Your task to perform on an android device: uninstall "Clock" Image 0: 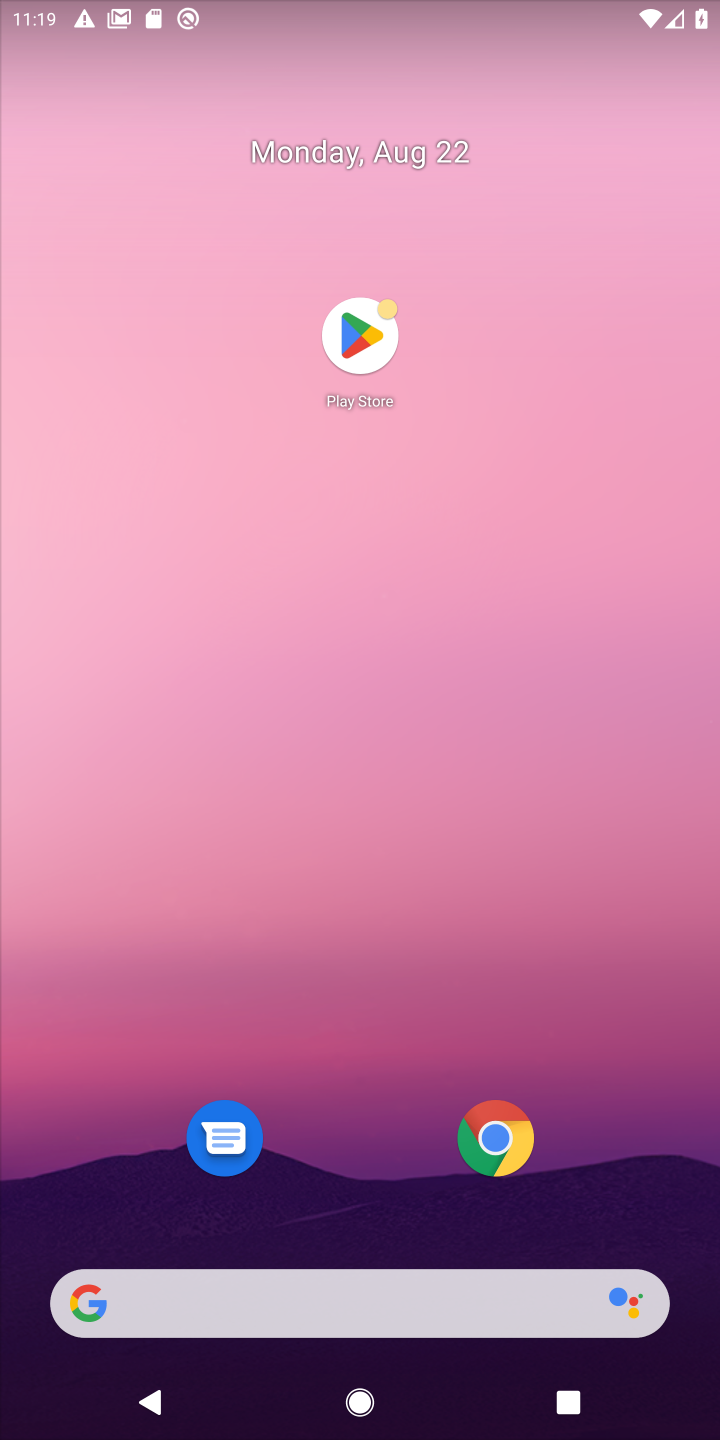
Step 0: click (372, 343)
Your task to perform on an android device: uninstall "Clock" Image 1: 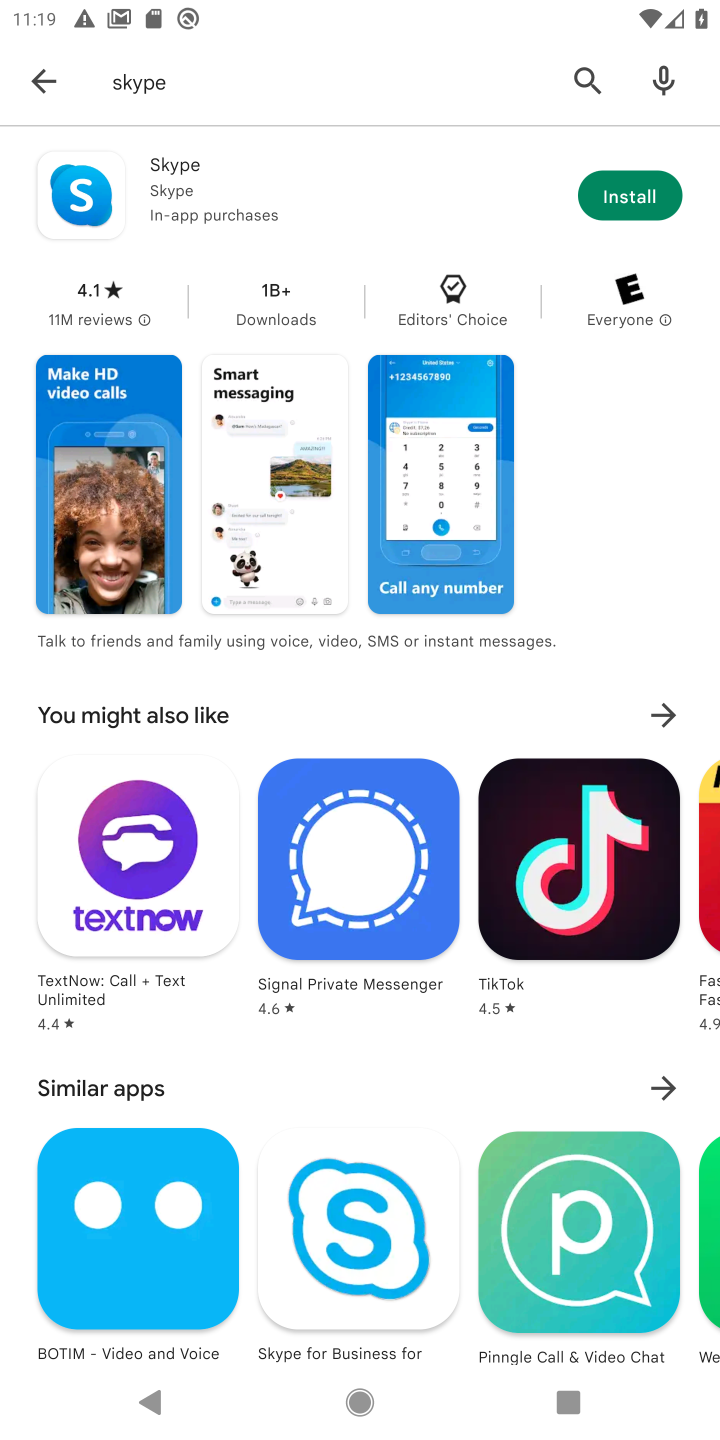
Step 1: click (578, 81)
Your task to perform on an android device: uninstall "Clock" Image 2: 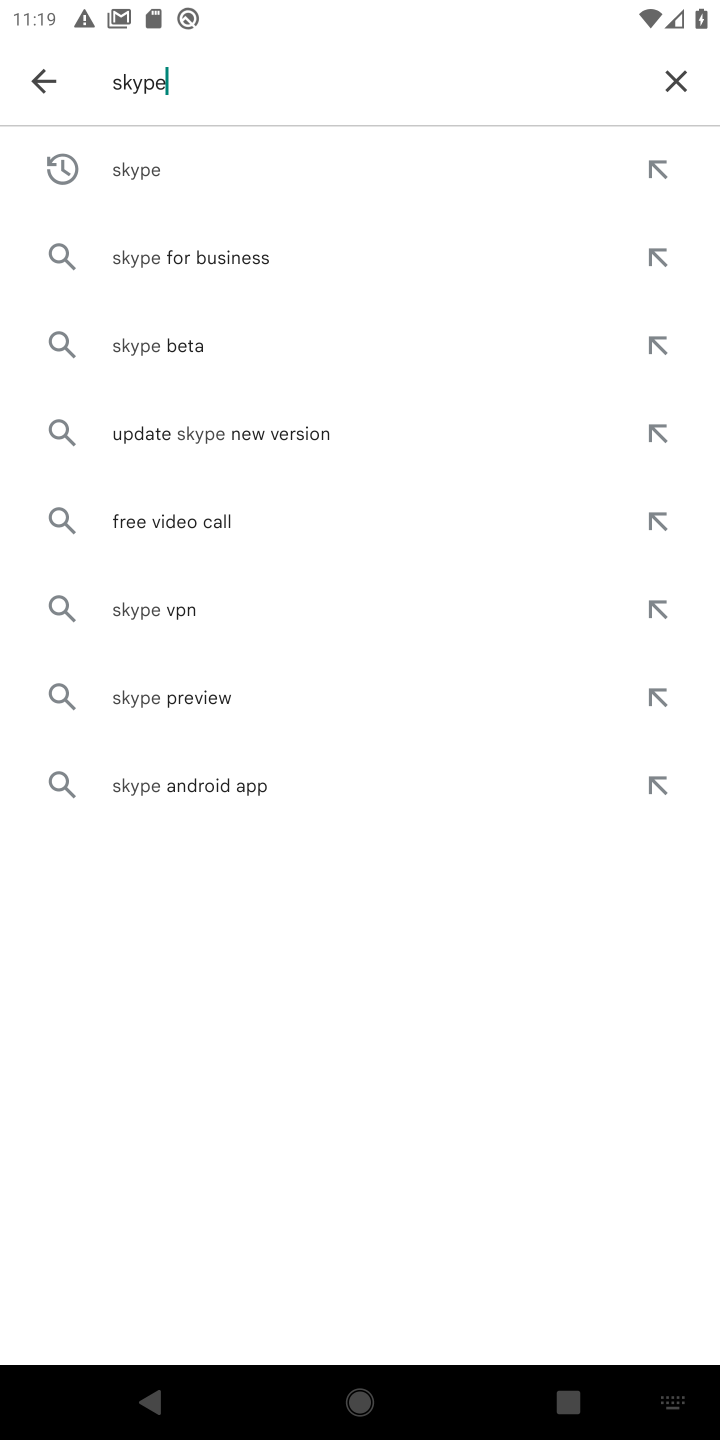
Step 2: click (673, 65)
Your task to perform on an android device: uninstall "Clock" Image 3: 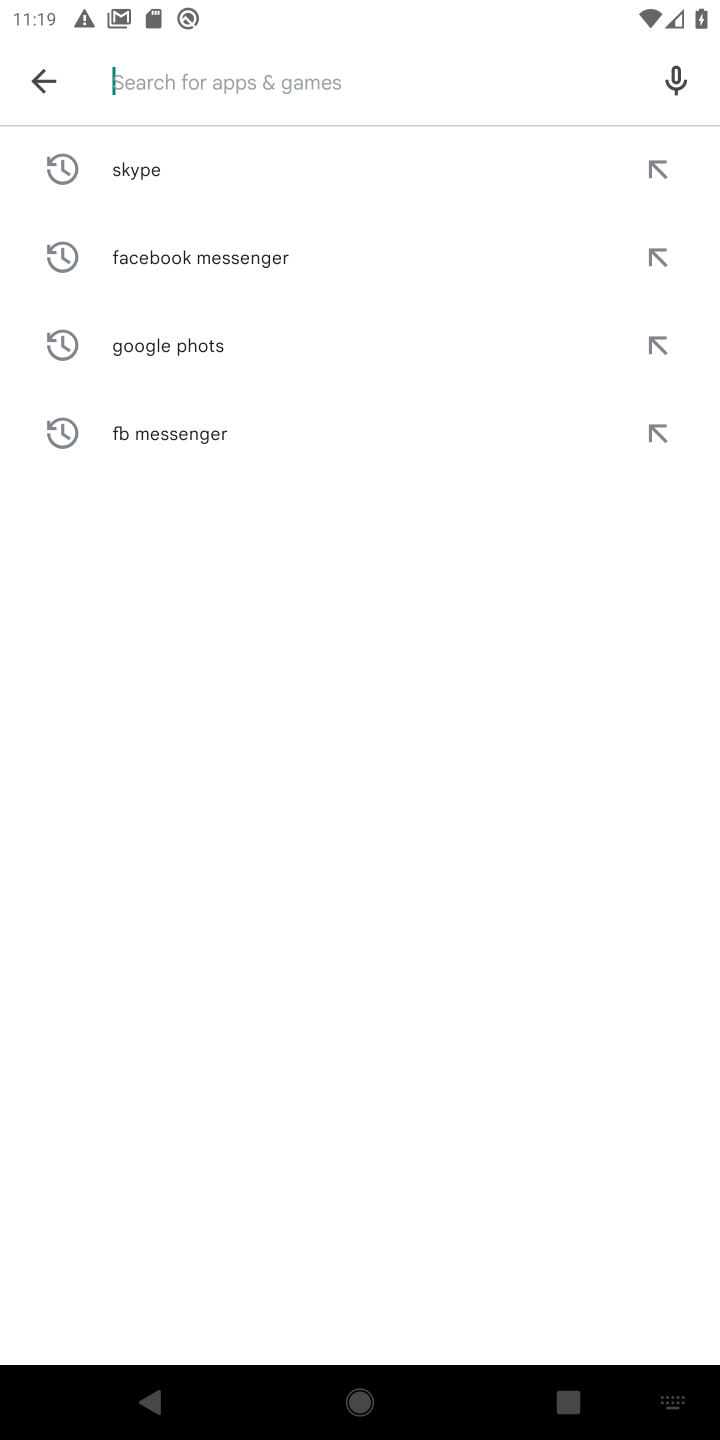
Step 3: type "clock"
Your task to perform on an android device: uninstall "Clock" Image 4: 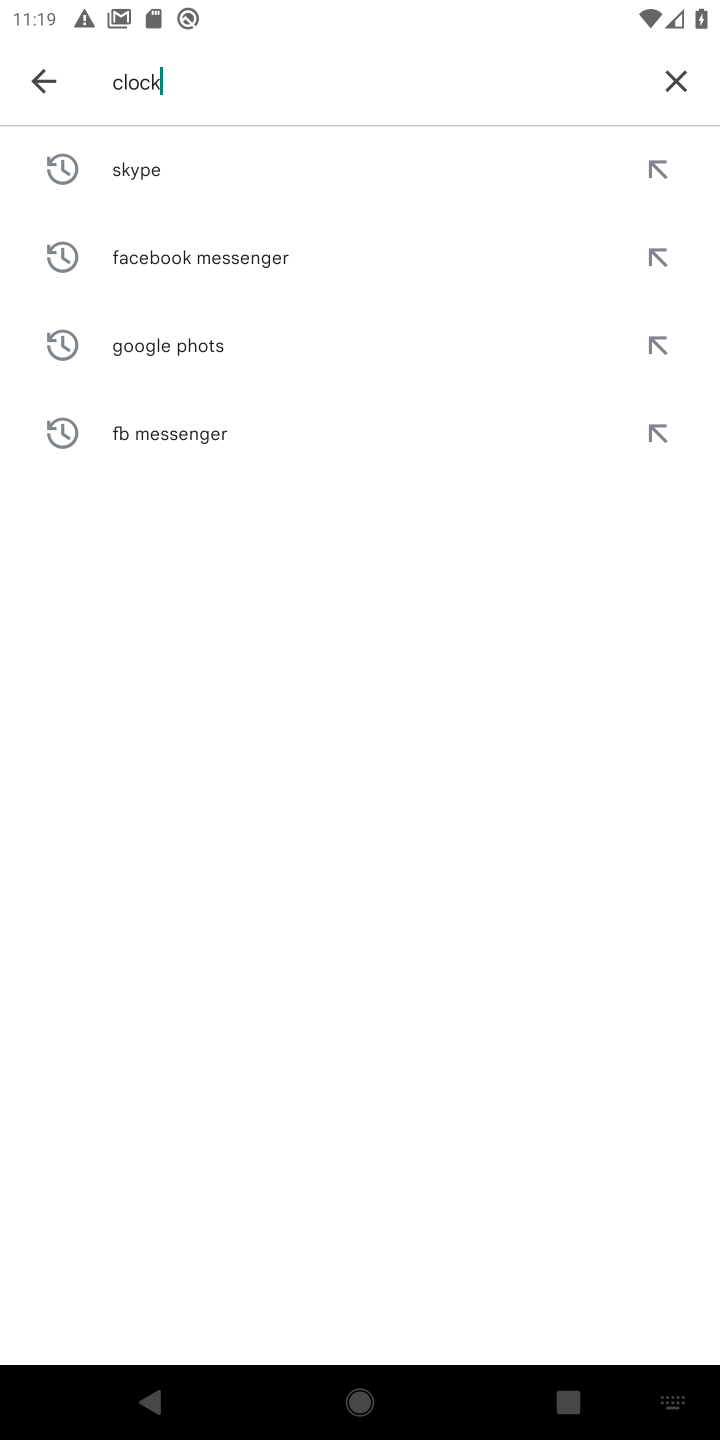
Step 4: type ""
Your task to perform on an android device: uninstall "Clock" Image 5: 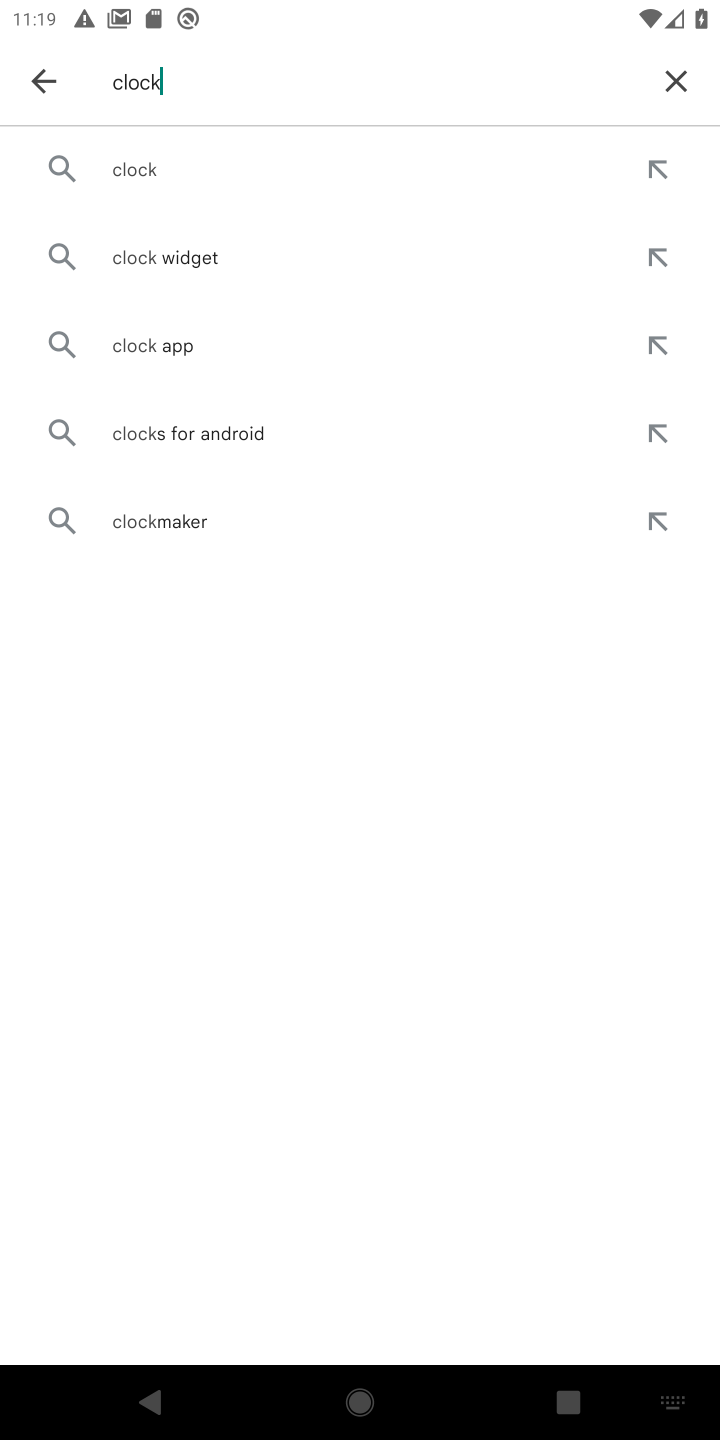
Step 5: click (131, 163)
Your task to perform on an android device: uninstall "Clock" Image 6: 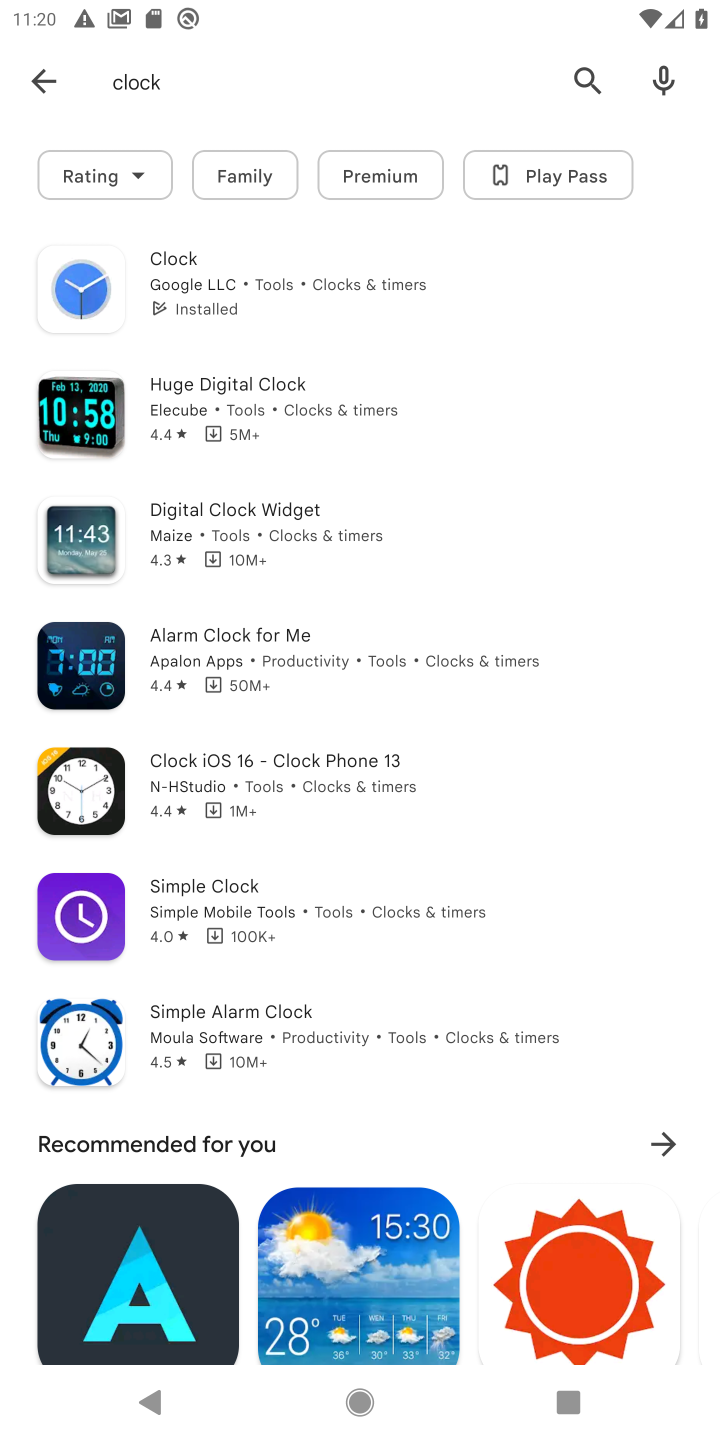
Step 6: click (179, 273)
Your task to perform on an android device: uninstall "Clock" Image 7: 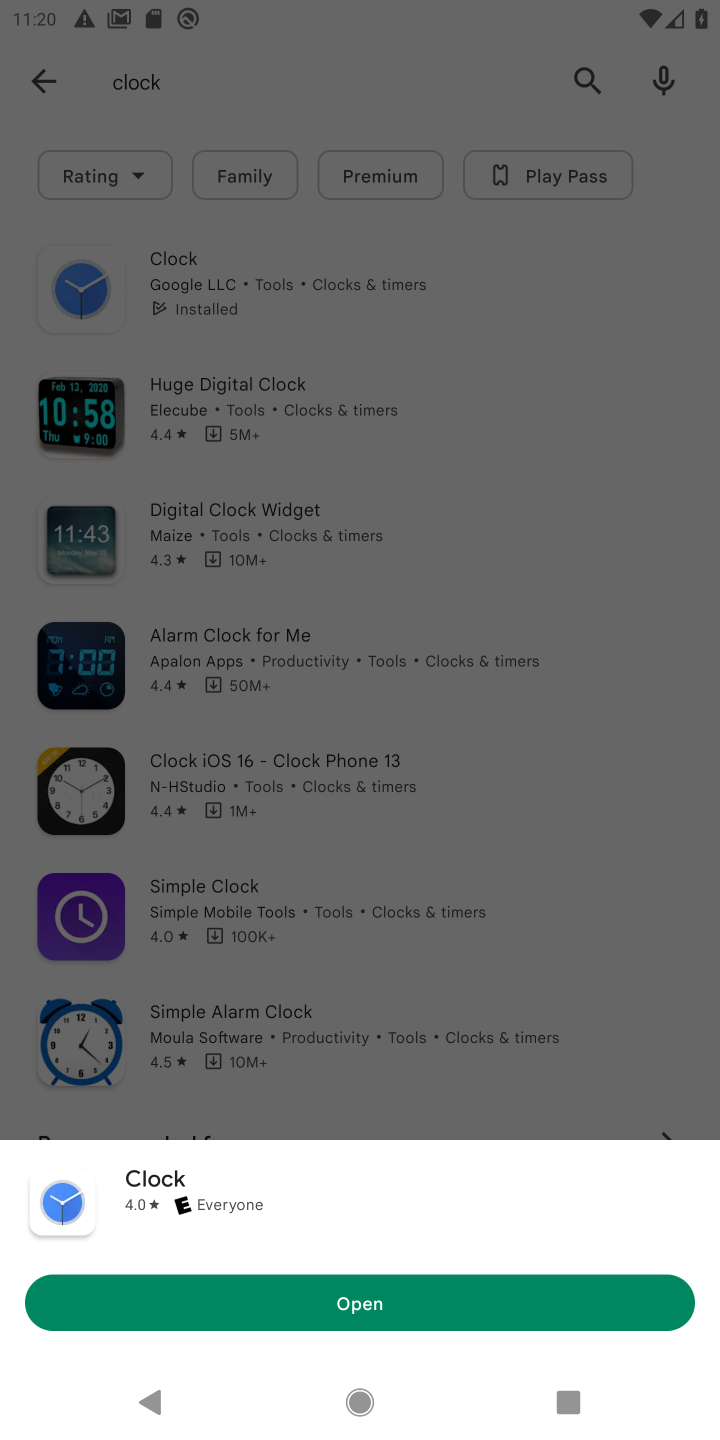
Step 7: click (553, 504)
Your task to perform on an android device: uninstall "Clock" Image 8: 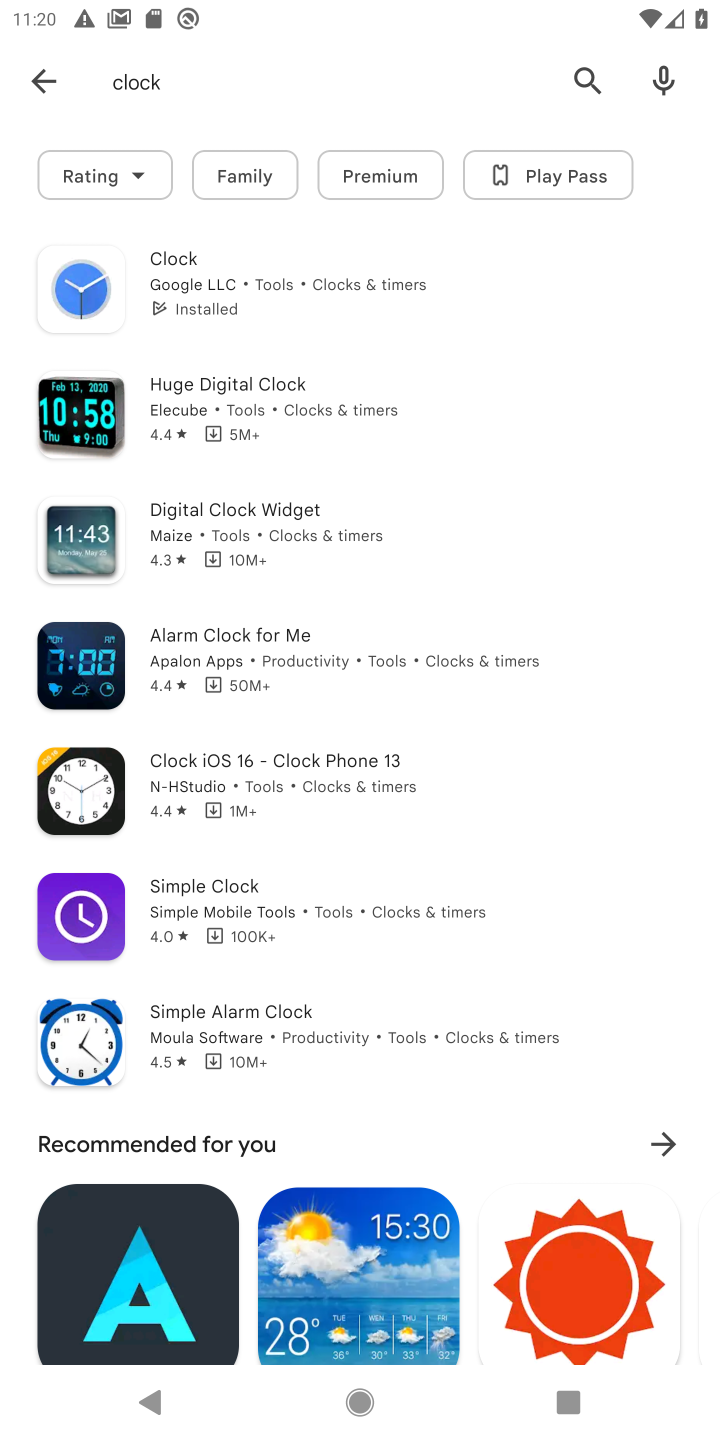
Step 8: click (62, 299)
Your task to perform on an android device: uninstall "Clock" Image 9: 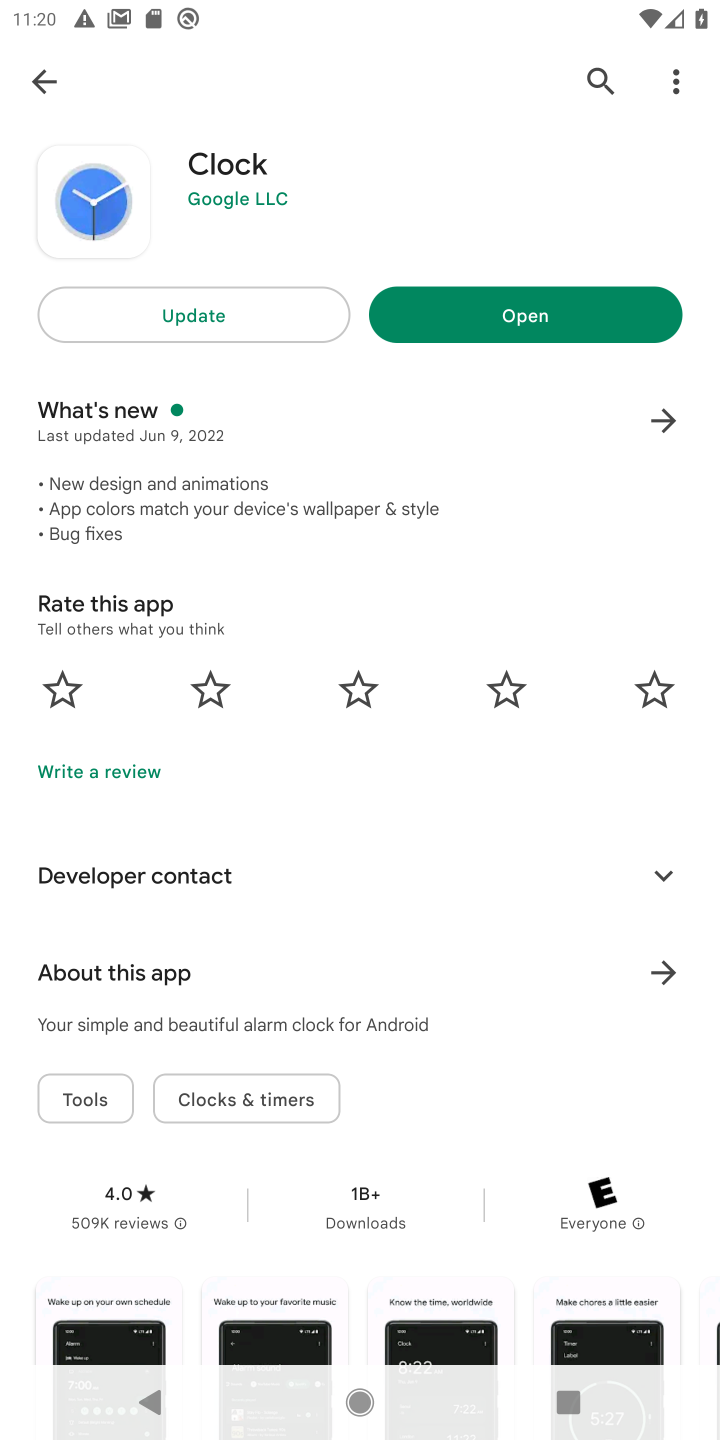
Step 9: click (678, 95)
Your task to perform on an android device: uninstall "Clock" Image 10: 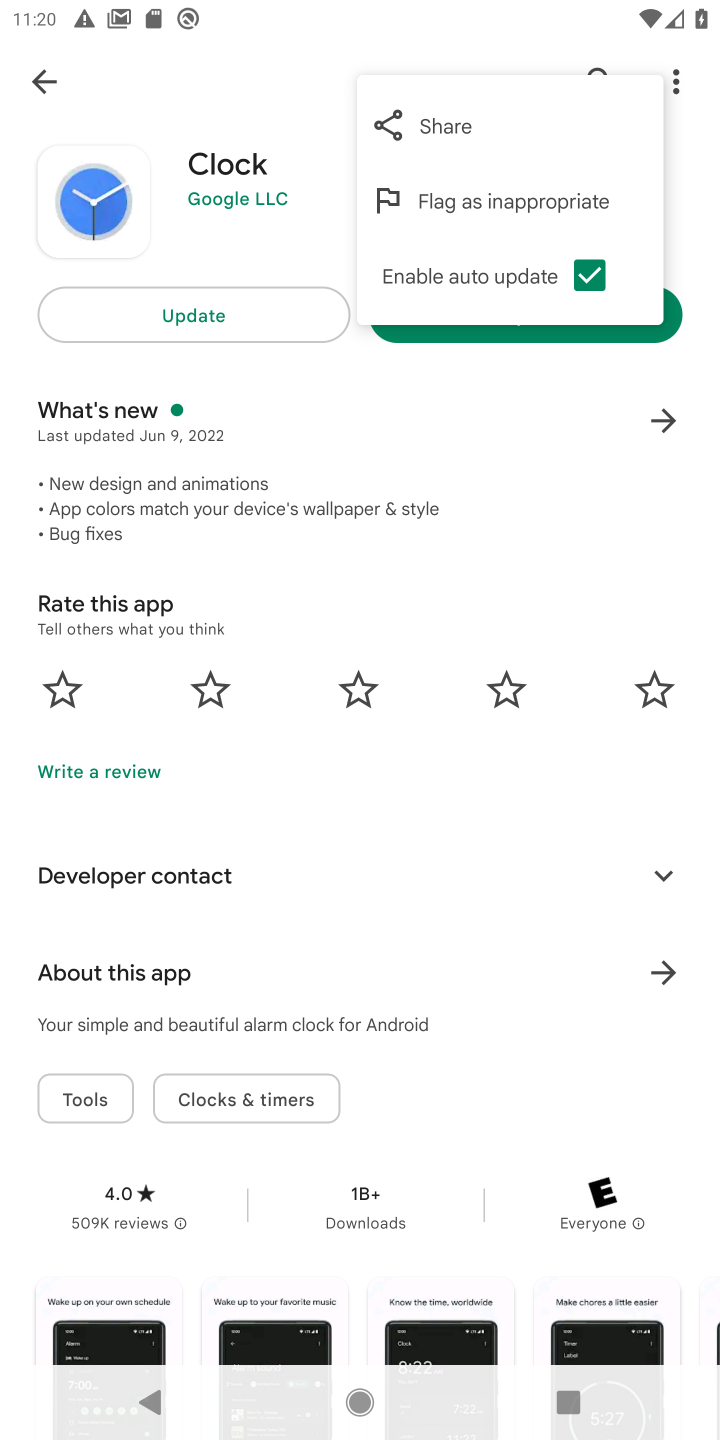
Step 10: click (350, 549)
Your task to perform on an android device: uninstall "Clock" Image 11: 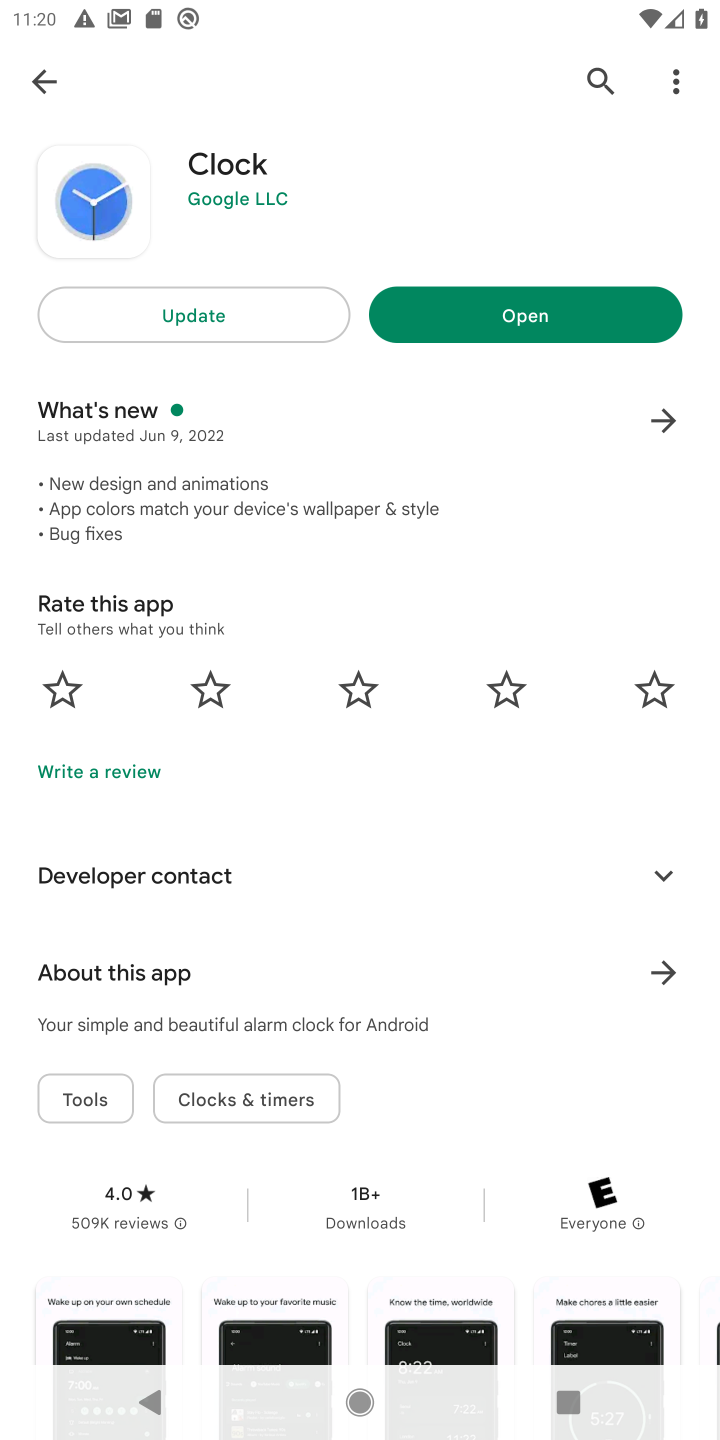
Step 11: click (117, 235)
Your task to perform on an android device: uninstall "Clock" Image 12: 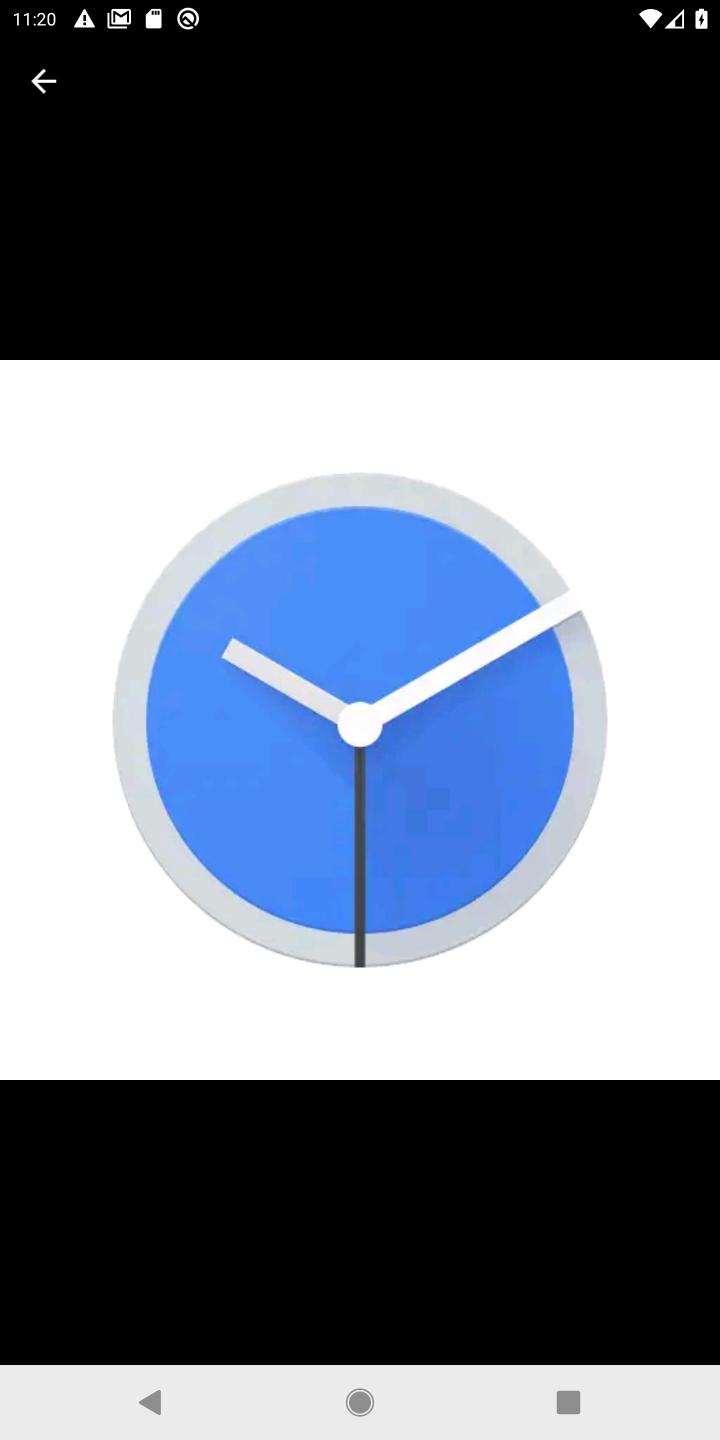
Step 12: click (200, 306)
Your task to perform on an android device: uninstall "Clock" Image 13: 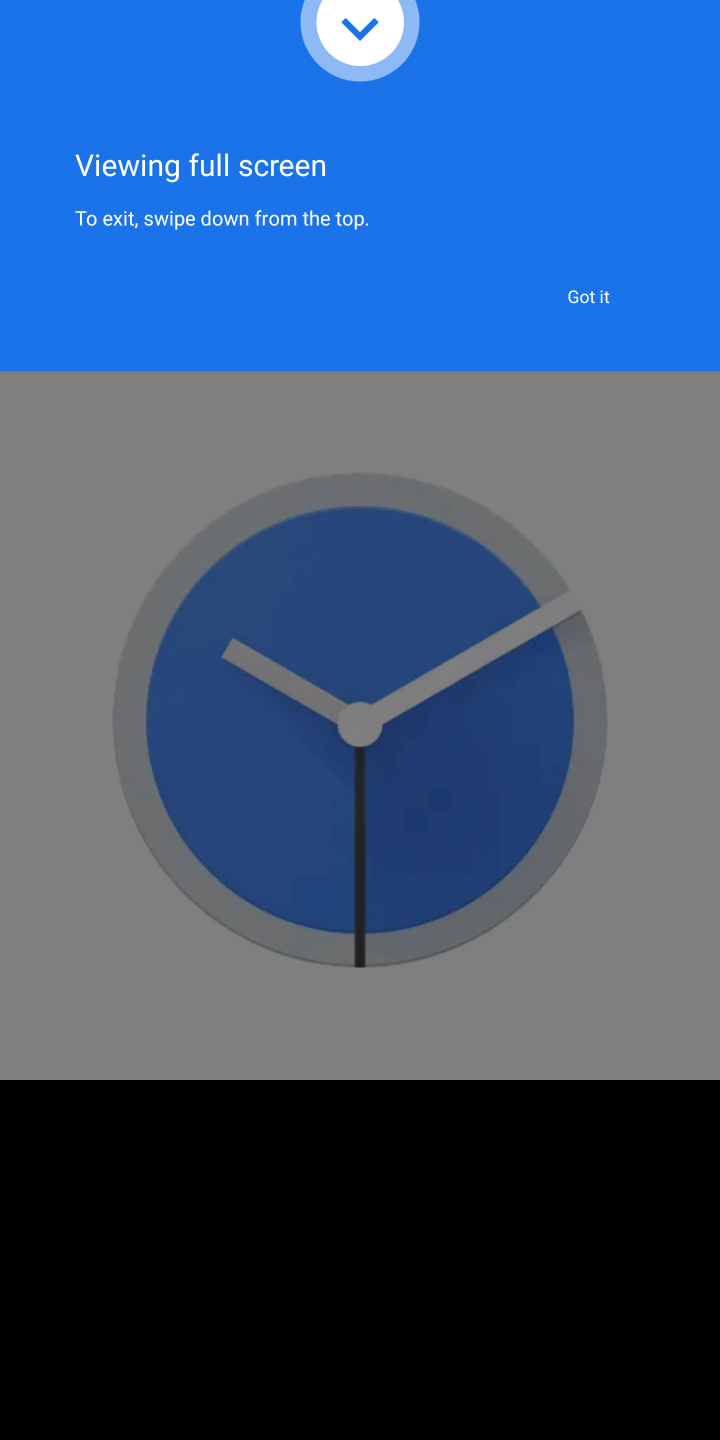
Step 13: press back button
Your task to perform on an android device: uninstall "Clock" Image 14: 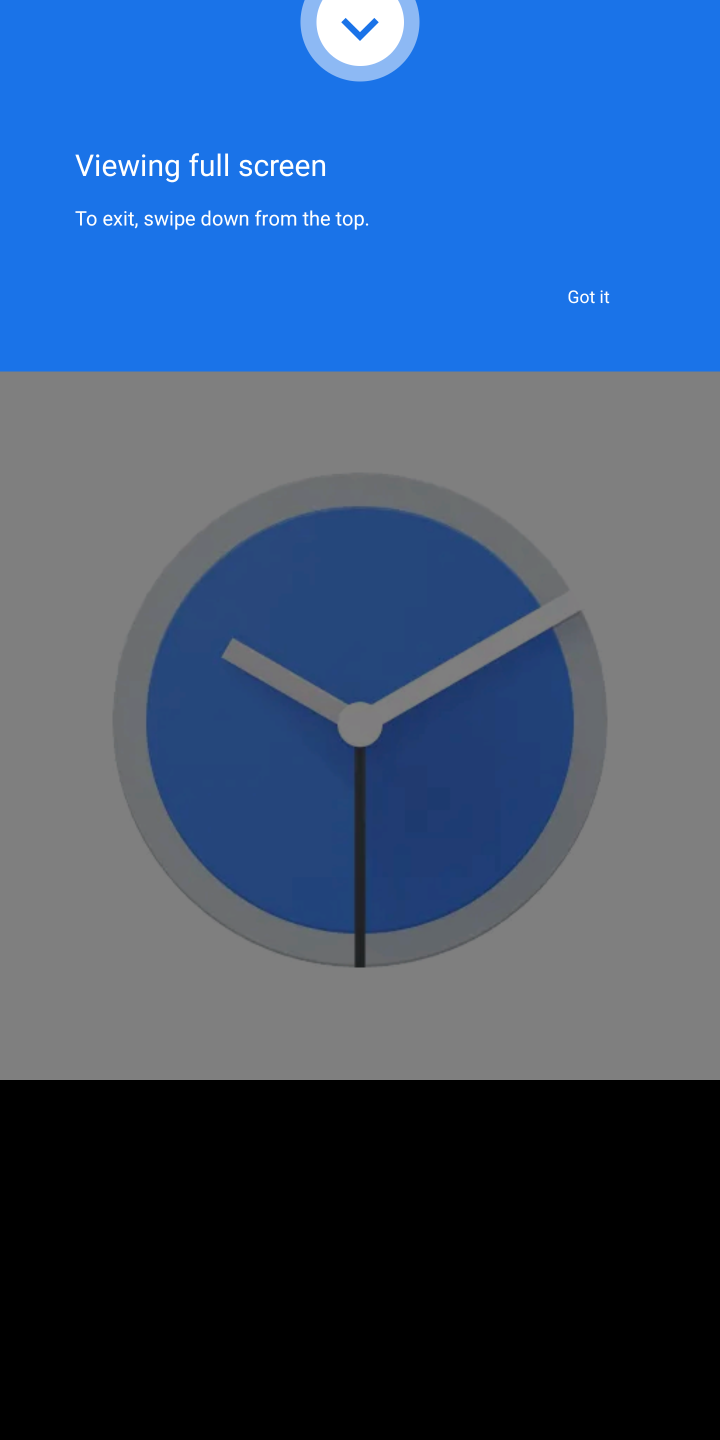
Step 14: press back button
Your task to perform on an android device: uninstall "Clock" Image 15: 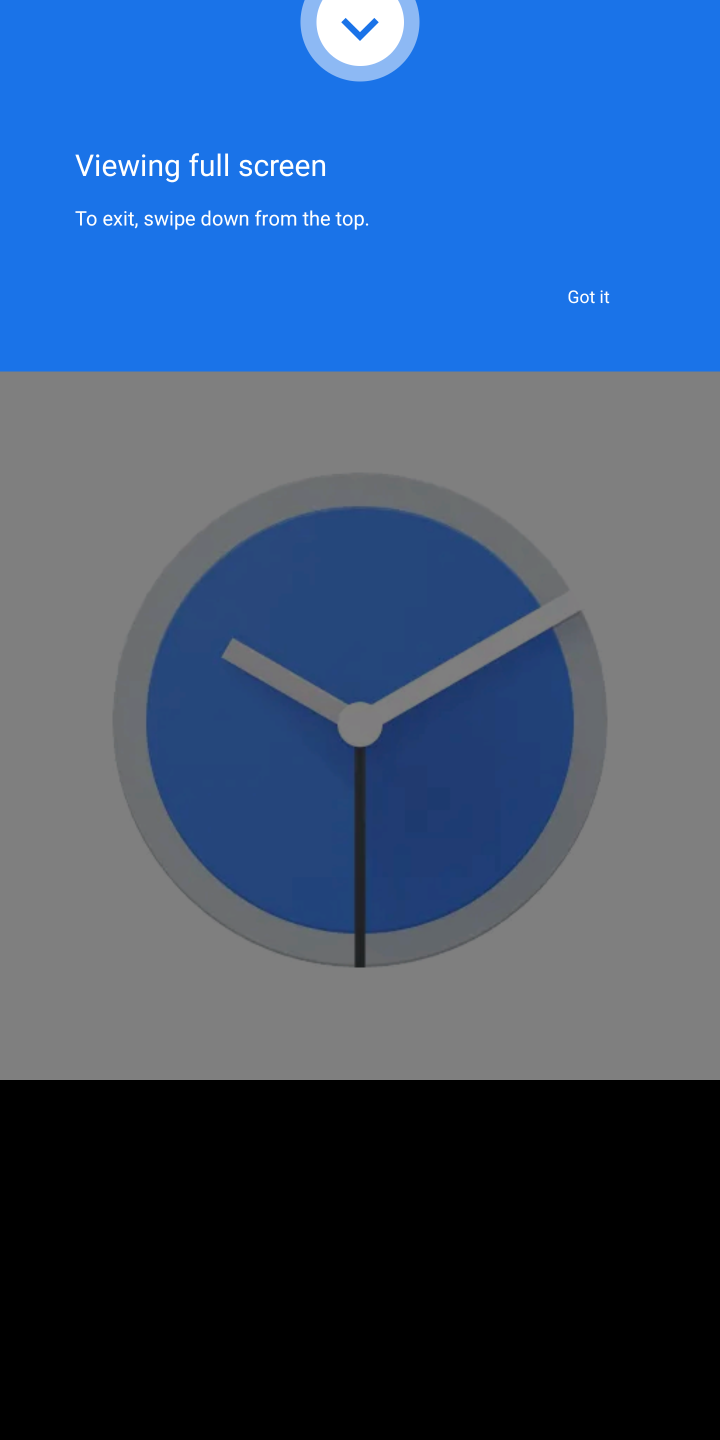
Step 15: click (585, 288)
Your task to perform on an android device: uninstall "Clock" Image 16: 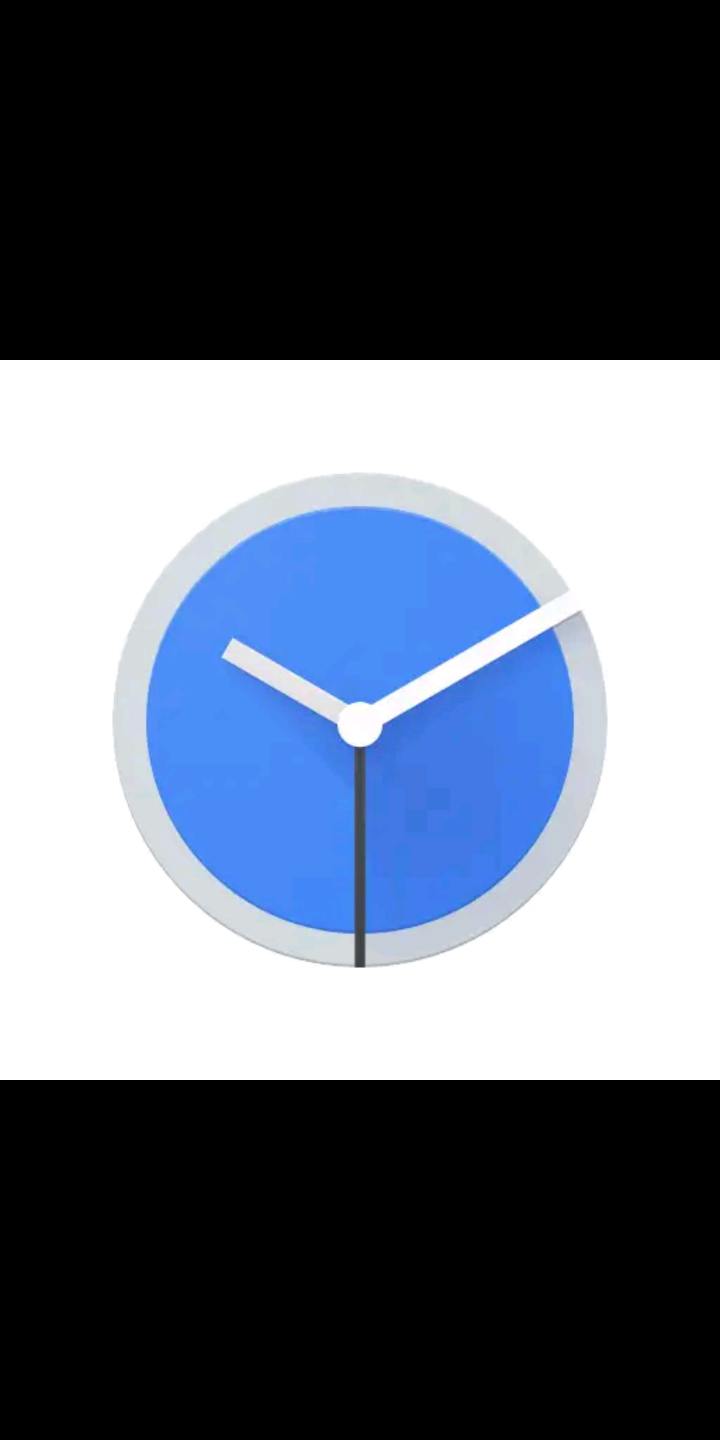
Step 16: press back button
Your task to perform on an android device: uninstall "Clock" Image 17: 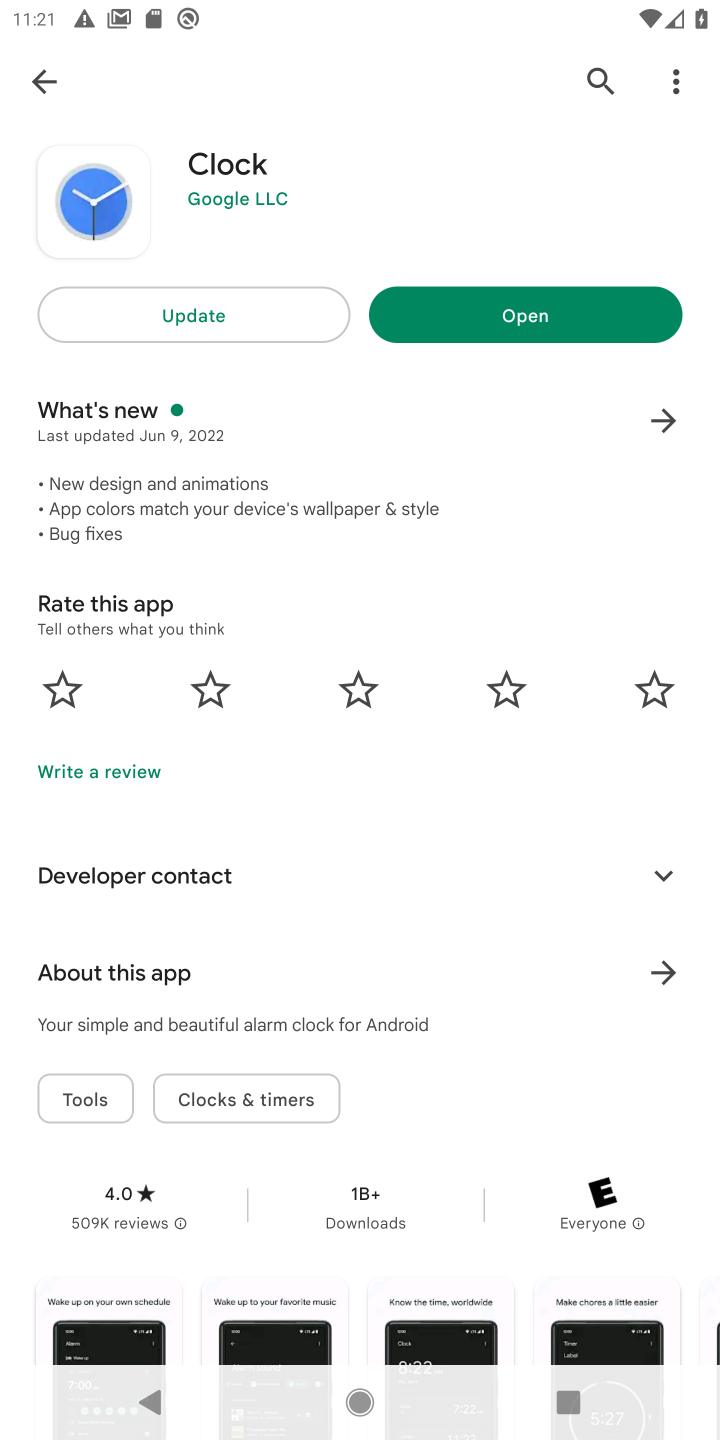
Step 17: click (149, 319)
Your task to perform on an android device: uninstall "Clock" Image 18: 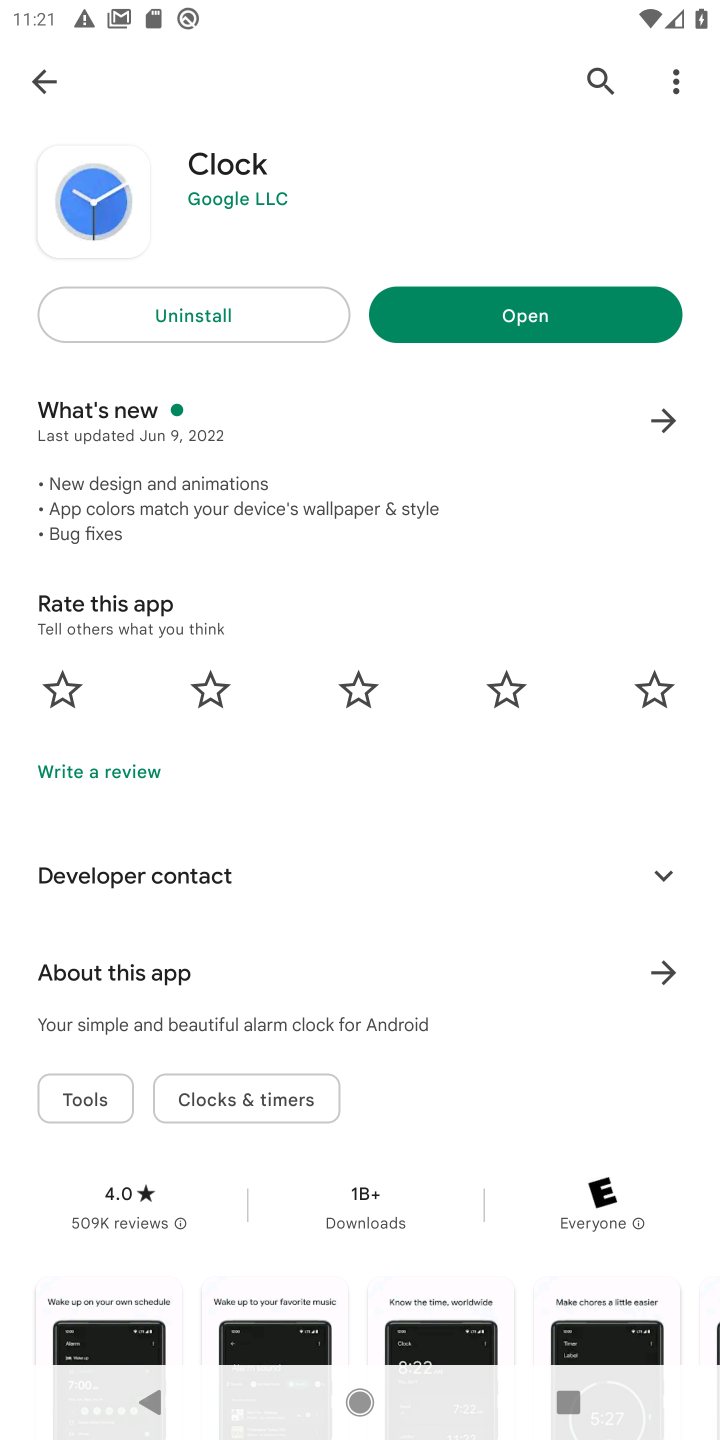
Step 18: click (149, 319)
Your task to perform on an android device: uninstall "Clock" Image 19: 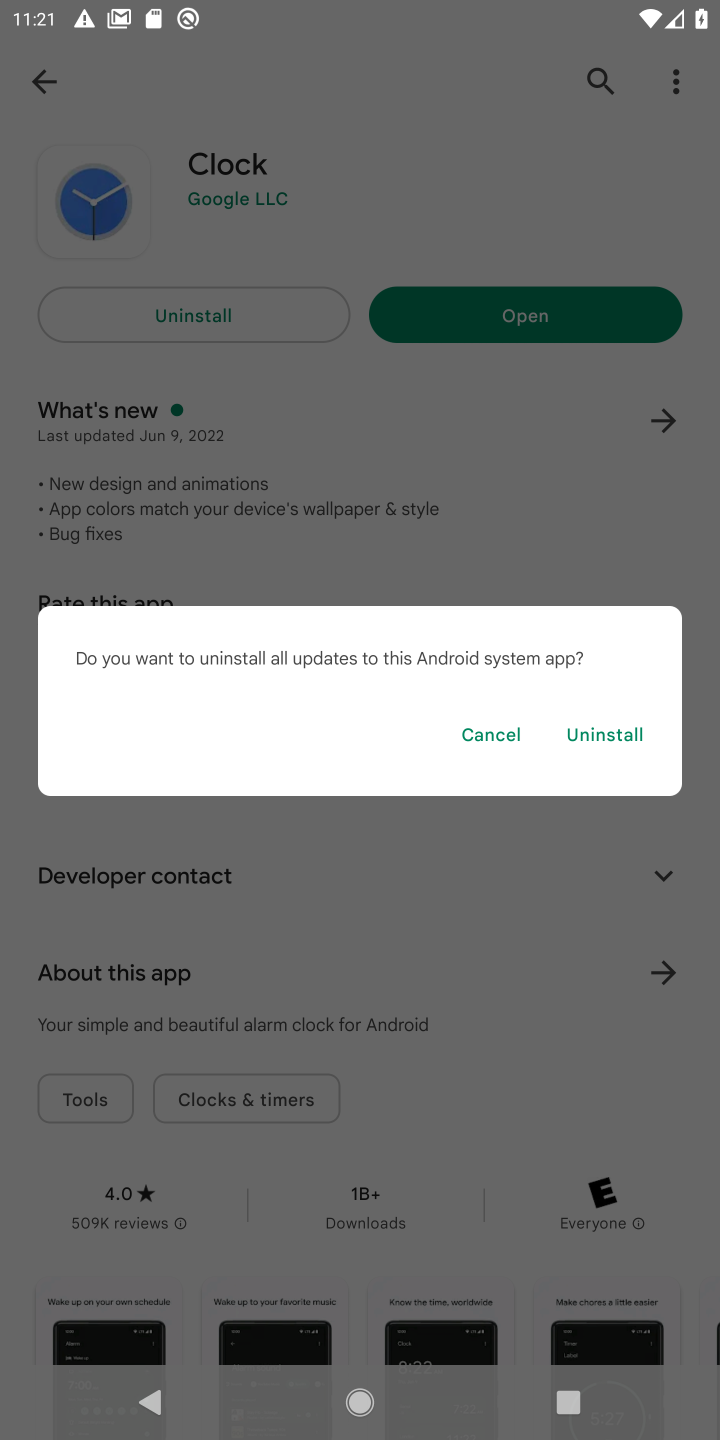
Step 19: click (632, 730)
Your task to perform on an android device: uninstall "Clock" Image 20: 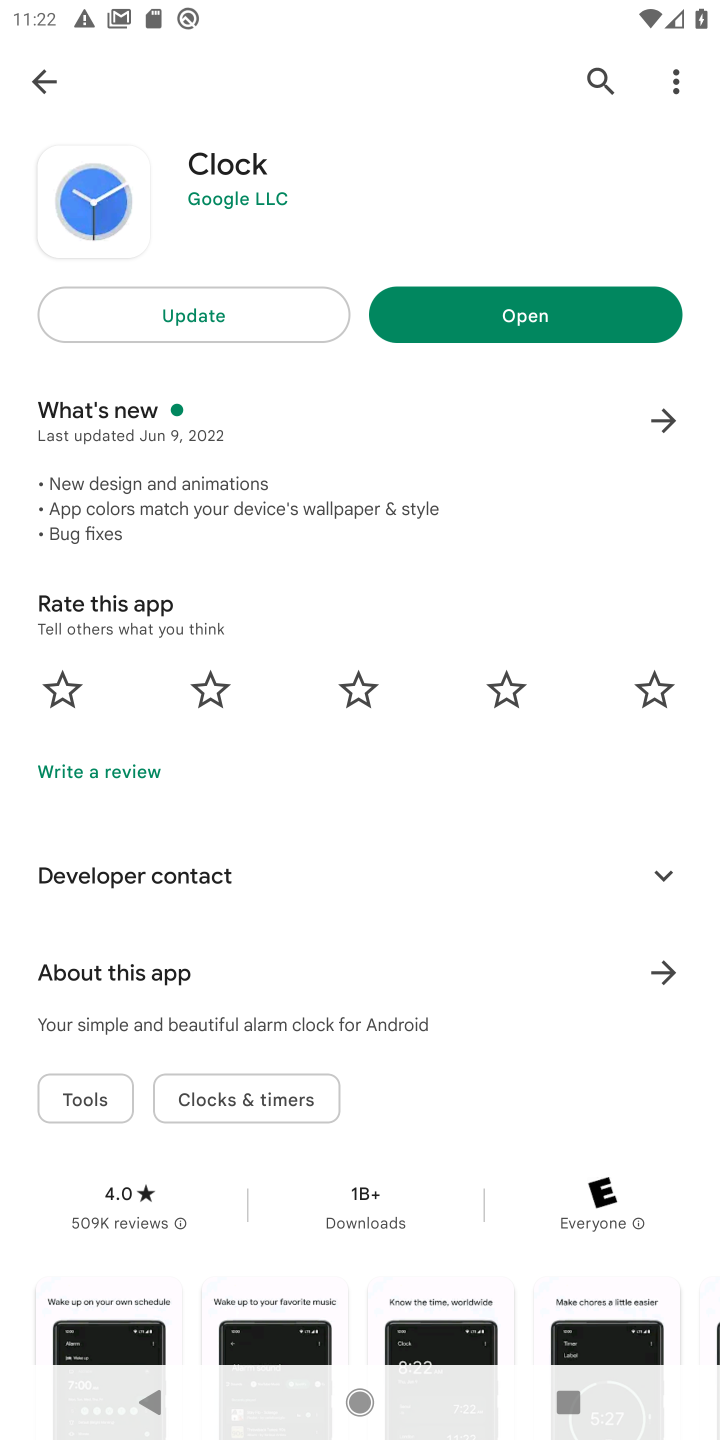
Step 20: task complete